Your task to perform on an android device: Open Android settings Image 0: 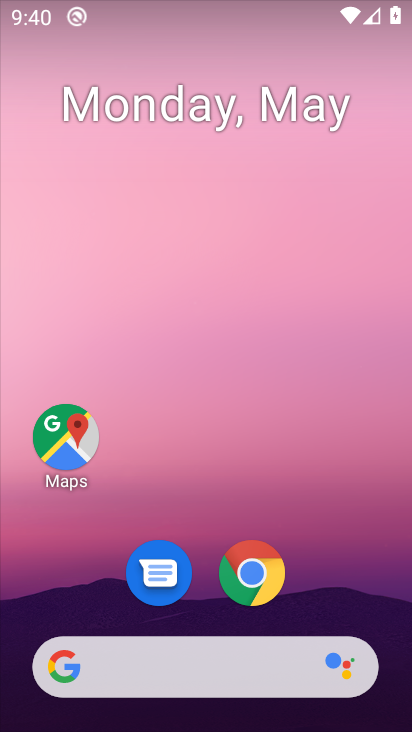
Step 0: drag from (199, 476) to (199, 65)
Your task to perform on an android device: Open Android settings Image 1: 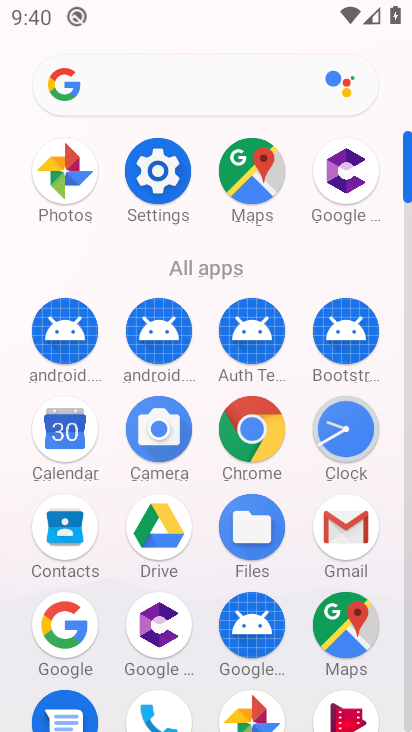
Step 1: click (151, 168)
Your task to perform on an android device: Open Android settings Image 2: 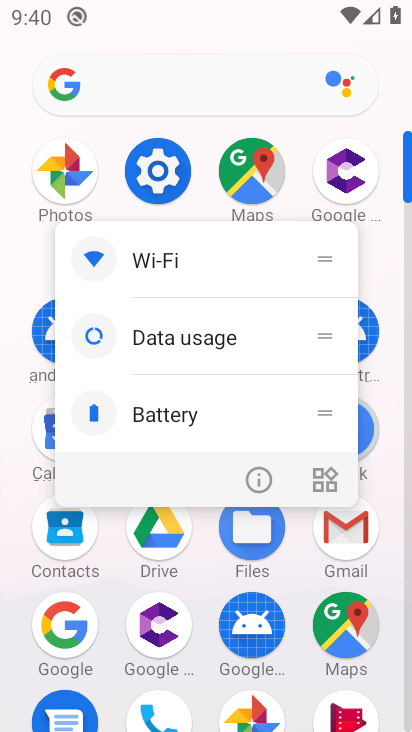
Step 2: click (165, 171)
Your task to perform on an android device: Open Android settings Image 3: 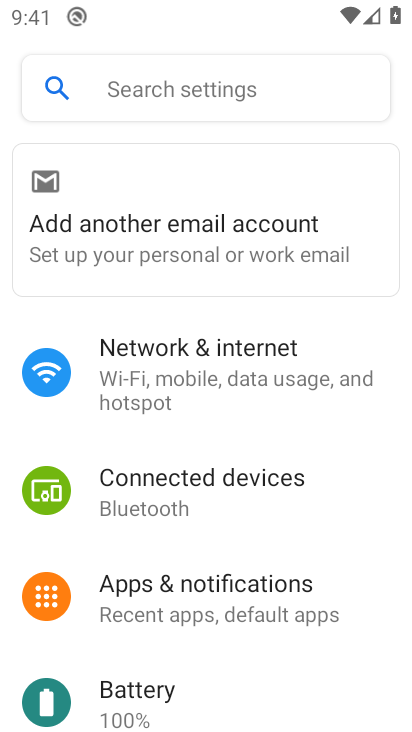
Step 3: drag from (196, 638) to (279, 104)
Your task to perform on an android device: Open Android settings Image 4: 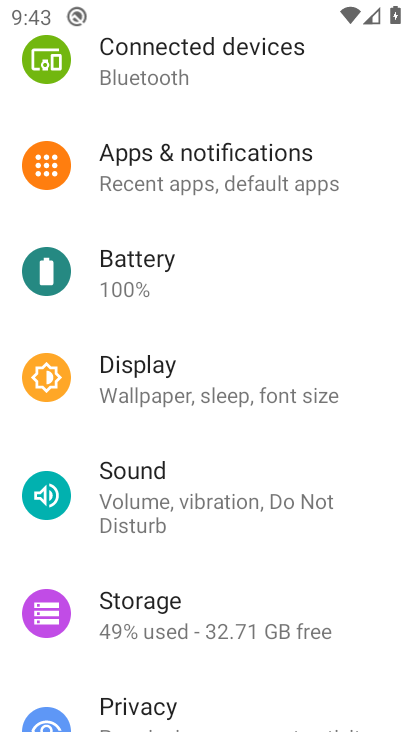
Step 4: drag from (183, 607) to (257, 44)
Your task to perform on an android device: Open Android settings Image 5: 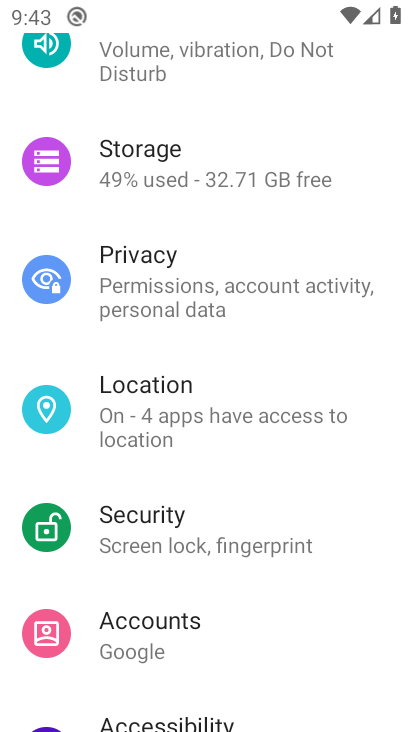
Step 5: drag from (190, 622) to (276, 67)
Your task to perform on an android device: Open Android settings Image 6: 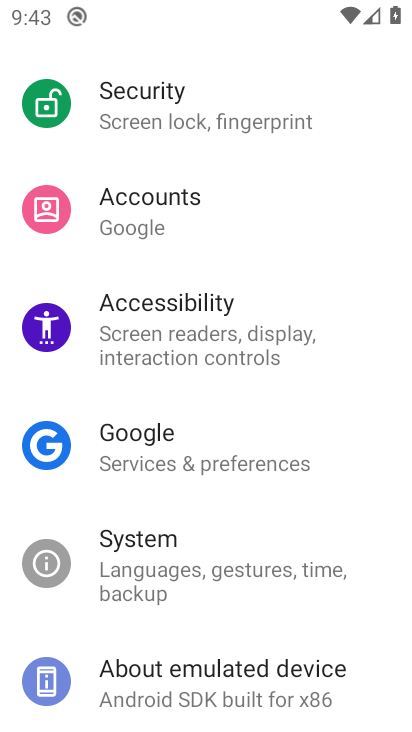
Step 6: drag from (237, 557) to (273, 91)
Your task to perform on an android device: Open Android settings Image 7: 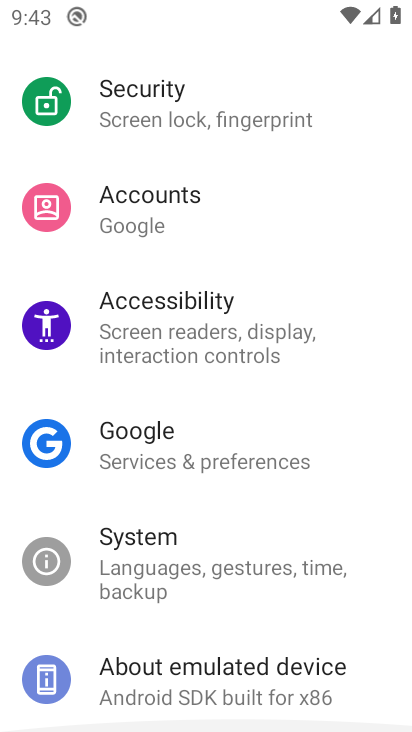
Step 7: click (195, 688)
Your task to perform on an android device: Open Android settings Image 8: 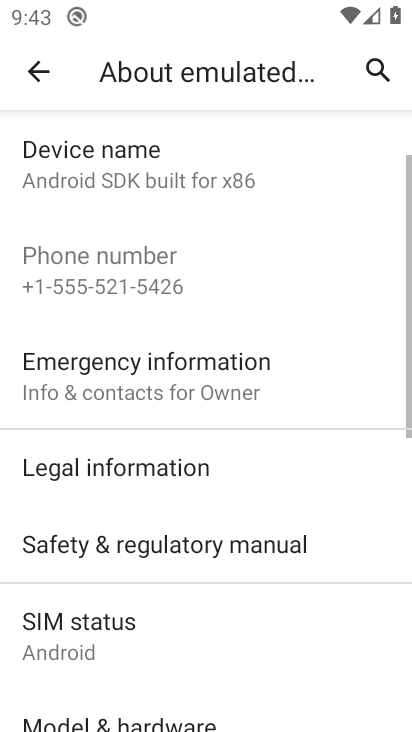
Step 8: drag from (223, 682) to (263, 122)
Your task to perform on an android device: Open Android settings Image 9: 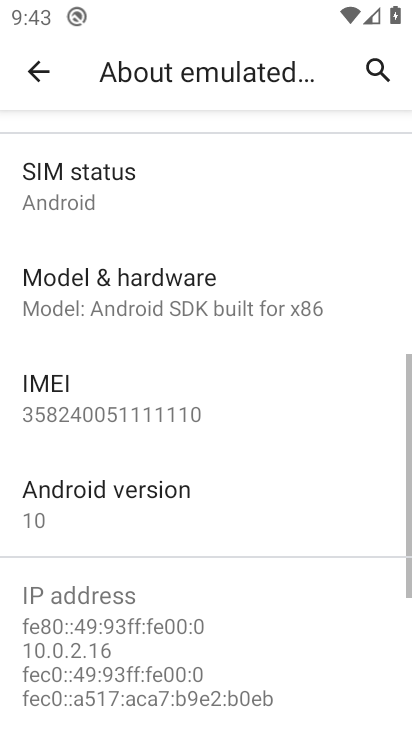
Step 9: click (116, 507)
Your task to perform on an android device: Open Android settings Image 10: 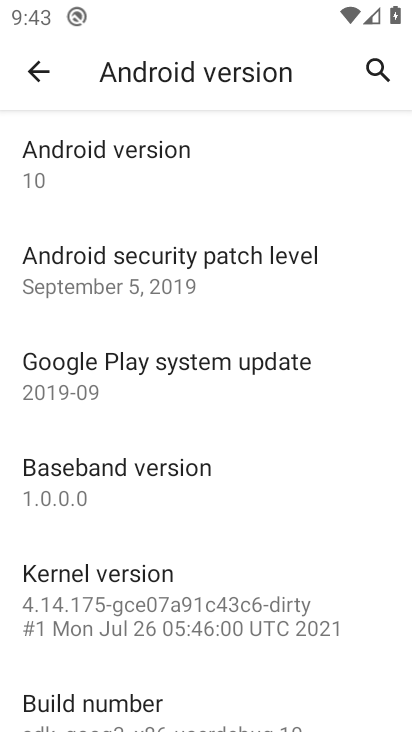
Step 10: task complete